Your task to perform on an android device: turn off wifi Image 0: 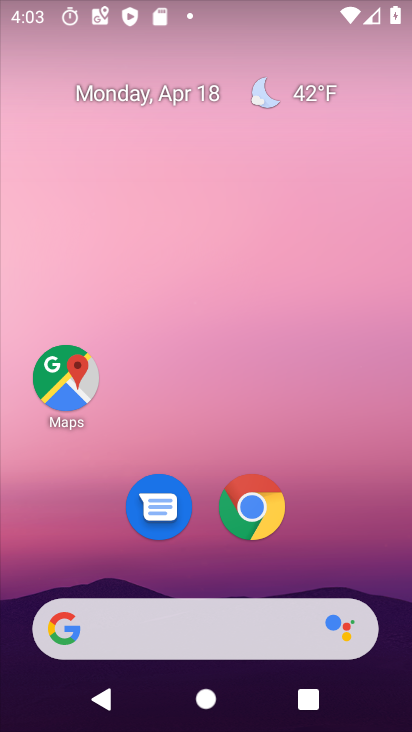
Step 0: drag from (328, 558) to (315, 42)
Your task to perform on an android device: turn off wifi Image 1: 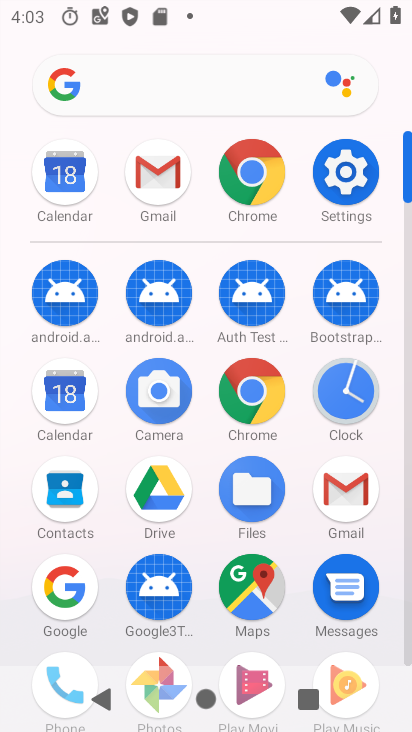
Step 1: click (337, 178)
Your task to perform on an android device: turn off wifi Image 2: 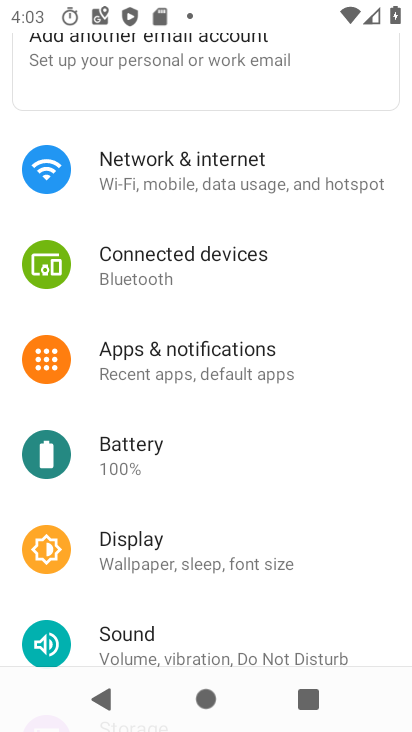
Step 2: click (296, 182)
Your task to perform on an android device: turn off wifi Image 3: 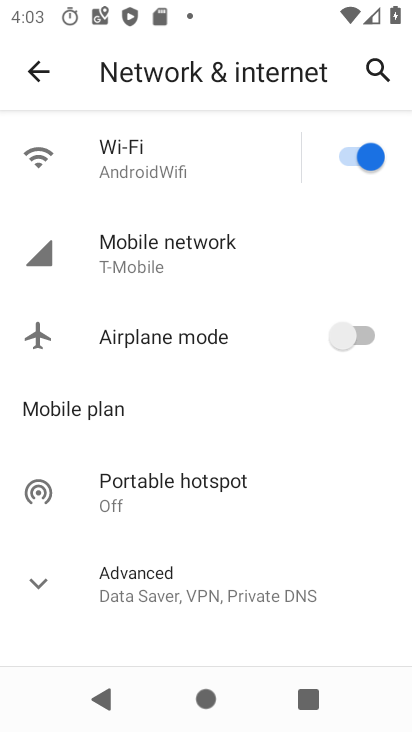
Step 3: click (351, 155)
Your task to perform on an android device: turn off wifi Image 4: 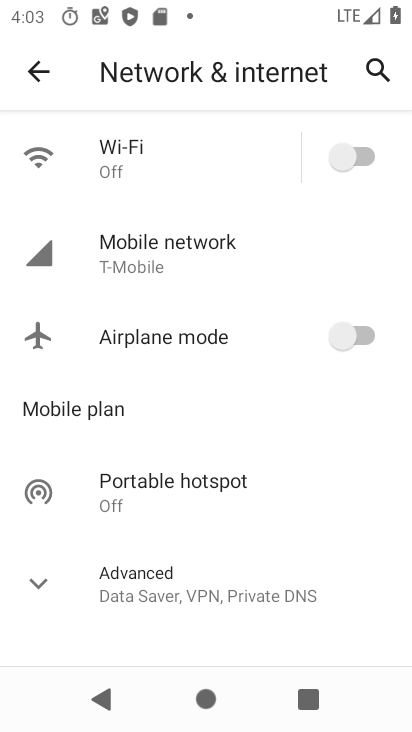
Step 4: task complete